Your task to perform on an android device: Open battery settings Image 0: 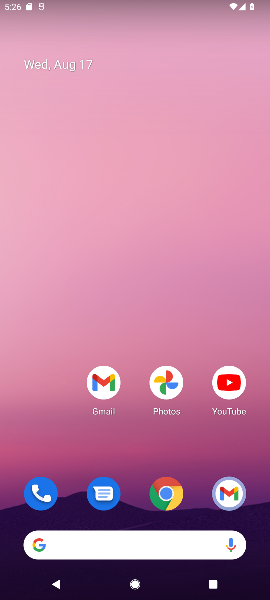
Step 0: press home button
Your task to perform on an android device: Open battery settings Image 1: 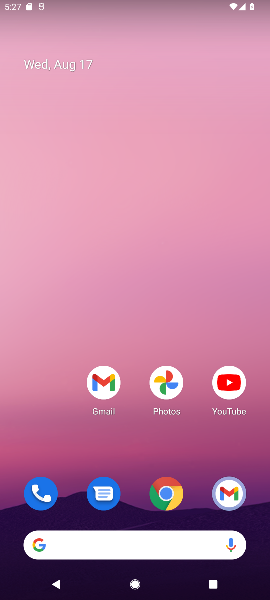
Step 1: drag from (116, 516) to (177, 0)
Your task to perform on an android device: Open battery settings Image 2: 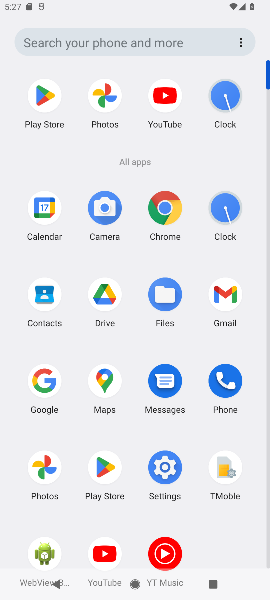
Step 2: click (159, 474)
Your task to perform on an android device: Open battery settings Image 3: 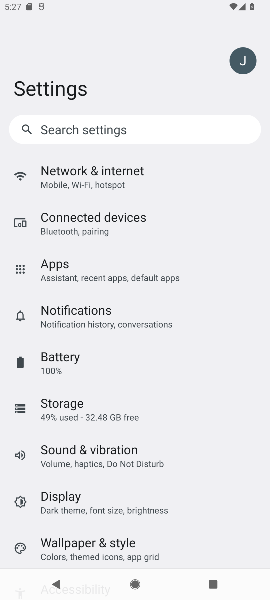
Step 3: click (62, 362)
Your task to perform on an android device: Open battery settings Image 4: 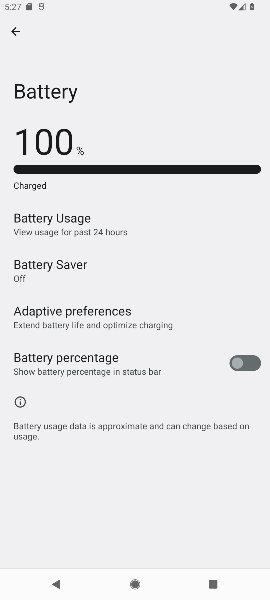
Step 4: task complete